Your task to perform on an android device: Open calendar and show me the first week of next month Image 0: 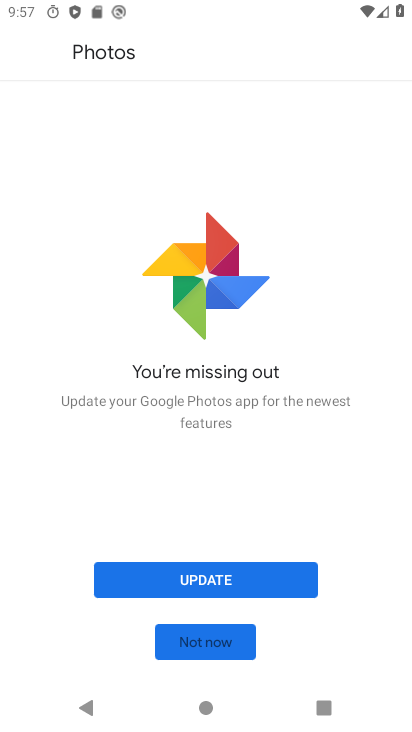
Step 0: press home button
Your task to perform on an android device: Open calendar and show me the first week of next month Image 1: 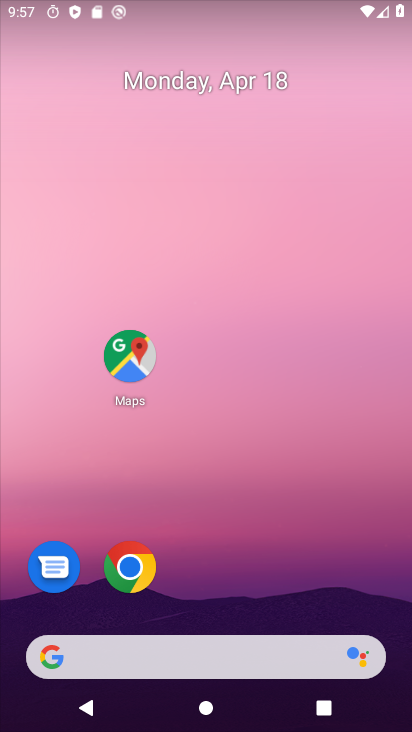
Step 1: drag from (247, 693) to (377, 228)
Your task to perform on an android device: Open calendar and show me the first week of next month Image 2: 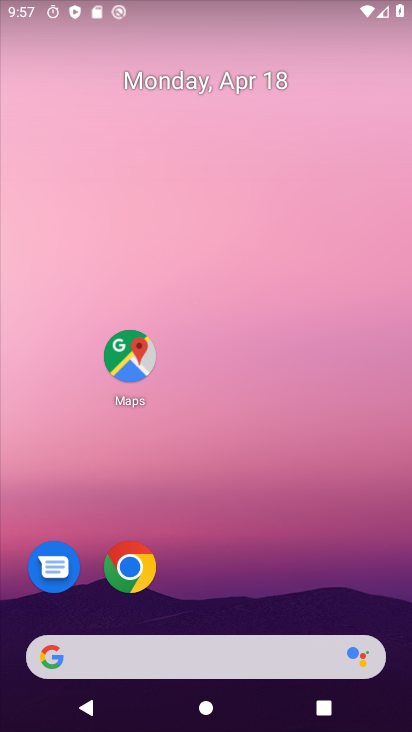
Step 2: drag from (254, 677) to (254, 286)
Your task to perform on an android device: Open calendar and show me the first week of next month Image 3: 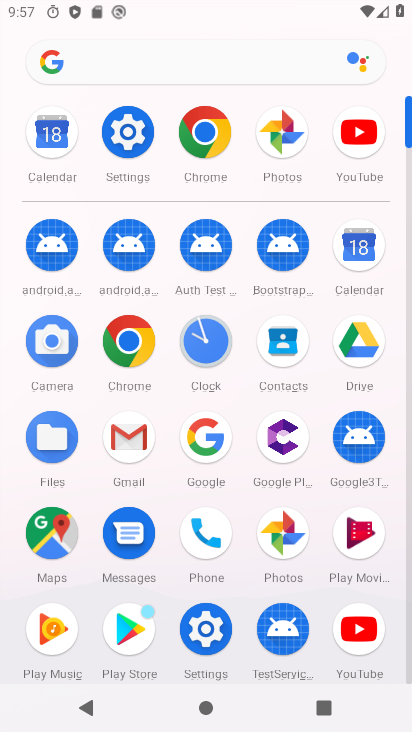
Step 3: click (347, 244)
Your task to perform on an android device: Open calendar and show me the first week of next month Image 4: 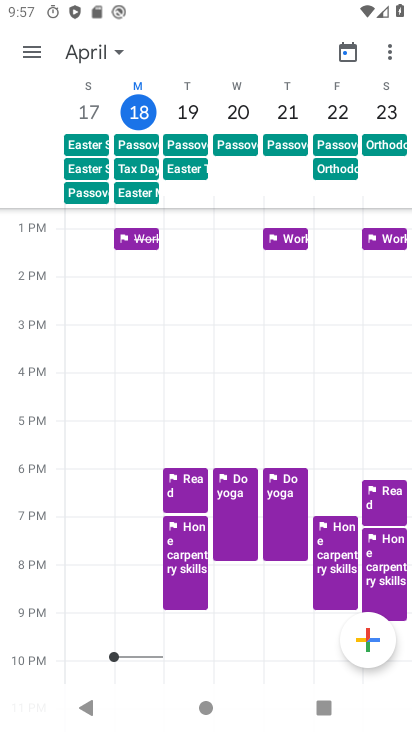
Step 4: click (23, 47)
Your task to perform on an android device: Open calendar and show me the first week of next month Image 5: 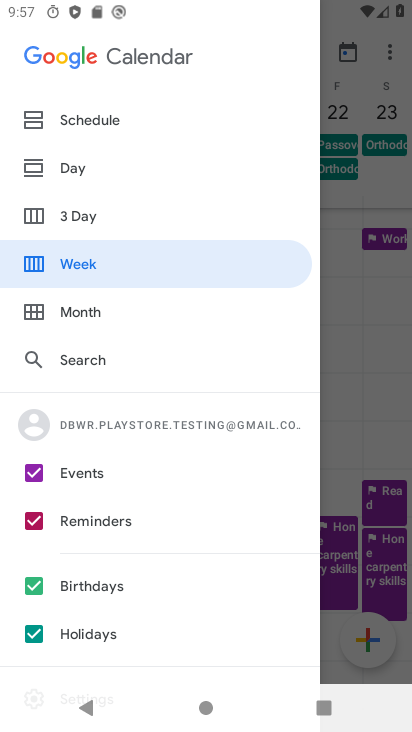
Step 5: click (127, 314)
Your task to perform on an android device: Open calendar and show me the first week of next month Image 6: 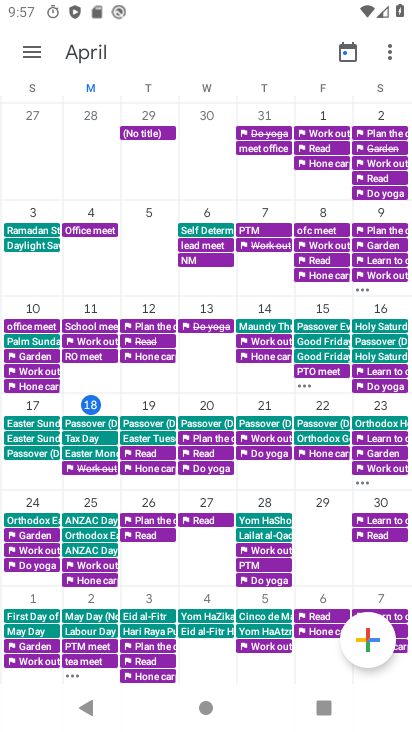
Step 6: drag from (393, 305) to (0, 321)
Your task to perform on an android device: Open calendar and show me the first week of next month Image 7: 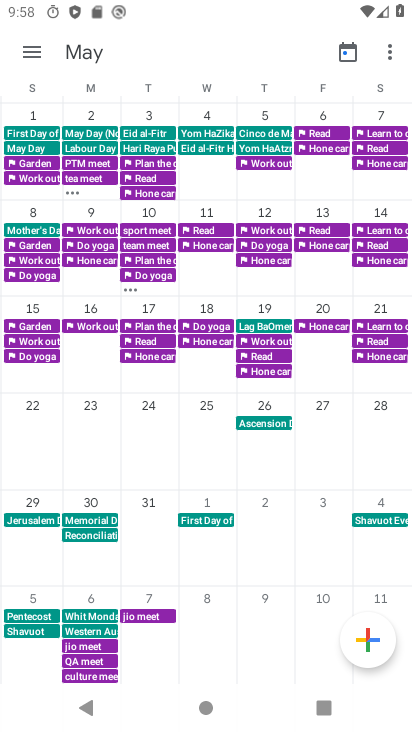
Step 7: click (86, 132)
Your task to perform on an android device: Open calendar and show me the first week of next month Image 8: 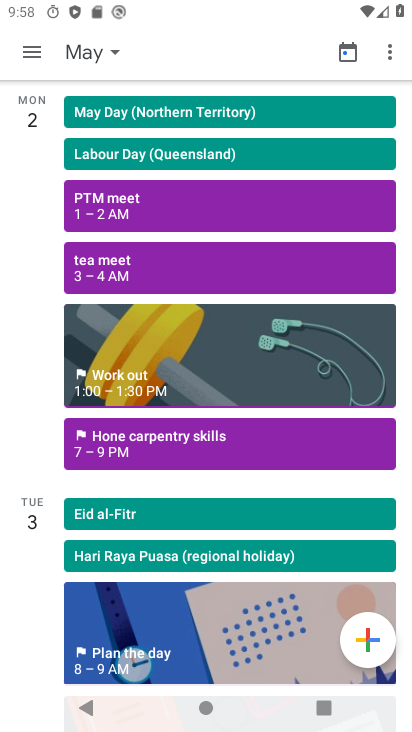
Step 8: task complete